Your task to perform on an android device: find snoozed emails in the gmail app Image 0: 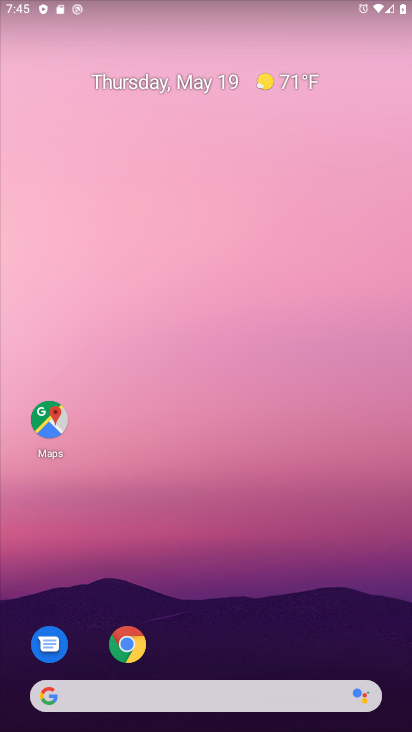
Step 0: drag from (133, 669) to (133, 405)
Your task to perform on an android device: find snoozed emails in the gmail app Image 1: 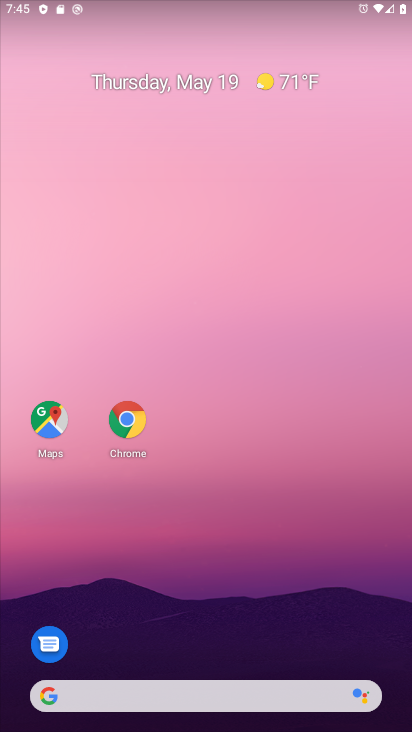
Step 1: drag from (219, 668) to (219, 327)
Your task to perform on an android device: find snoozed emails in the gmail app Image 2: 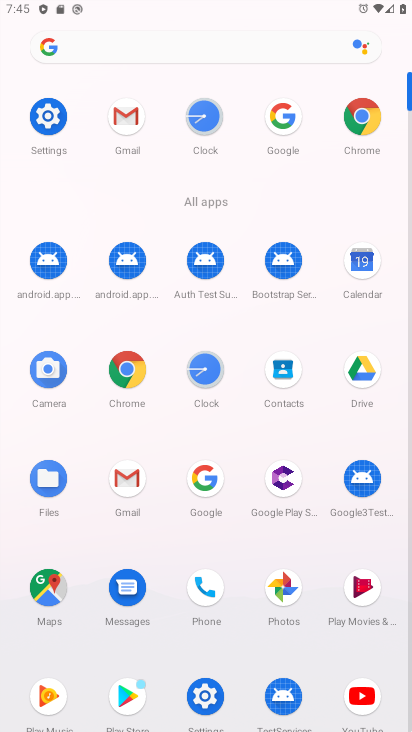
Step 2: click (126, 498)
Your task to perform on an android device: find snoozed emails in the gmail app Image 3: 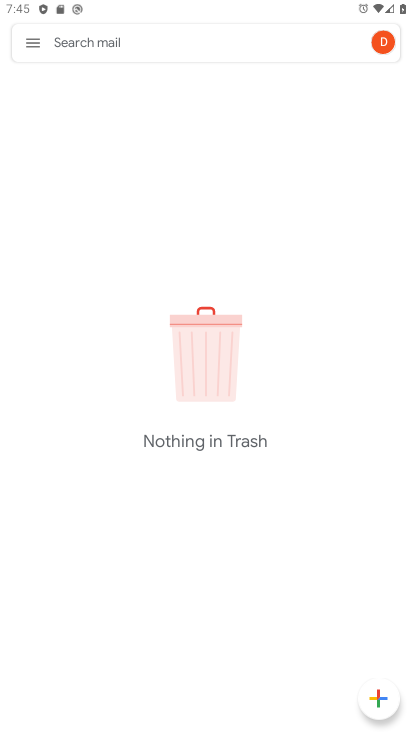
Step 3: click (35, 46)
Your task to perform on an android device: find snoozed emails in the gmail app Image 4: 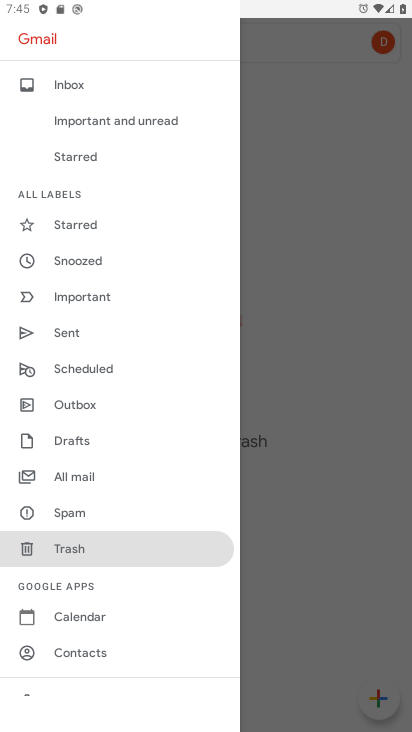
Step 4: click (82, 266)
Your task to perform on an android device: find snoozed emails in the gmail app Image 5: 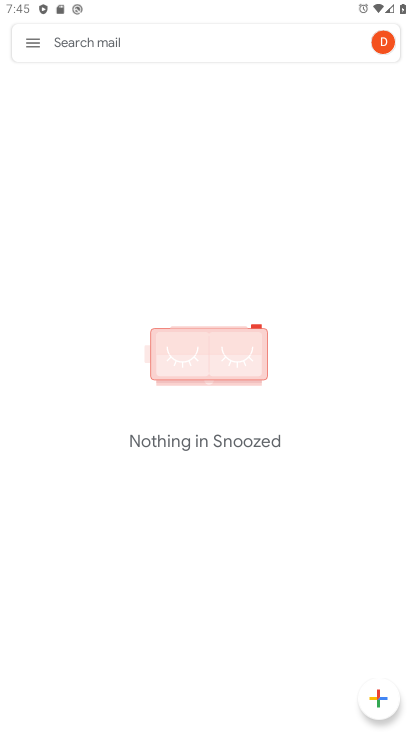
Step 5: task complete